Your task to perform on an android device: turn notification dots off Image 0: 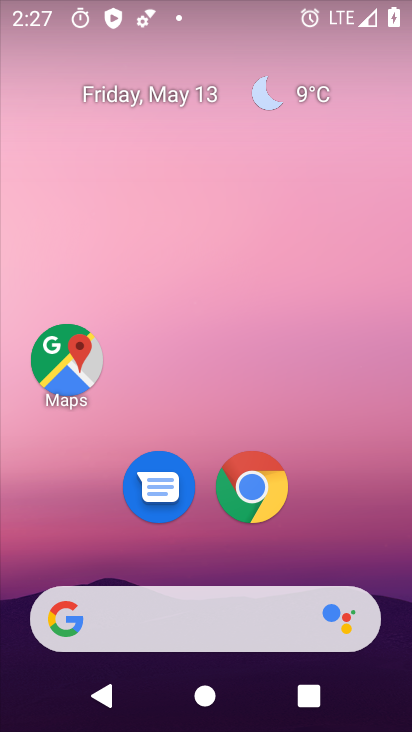
Step 0: drag from (214, 556) to (236, 97)
Your task to perform on an android device: turn notification dots off Image 1: 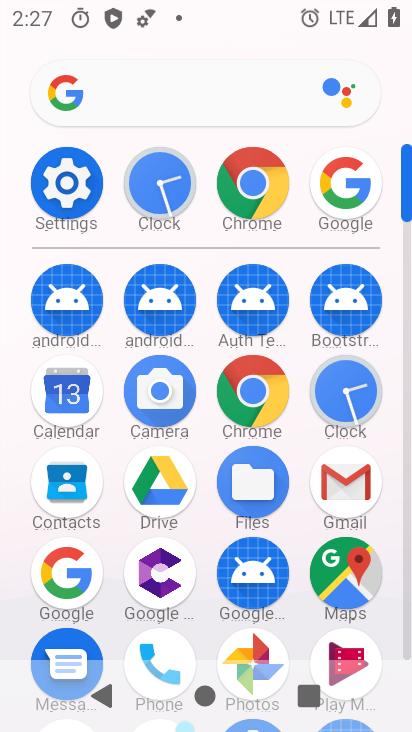
Step 1: click (64, 174)
Your task to perform on an android device: turn notification dots off Image 2: 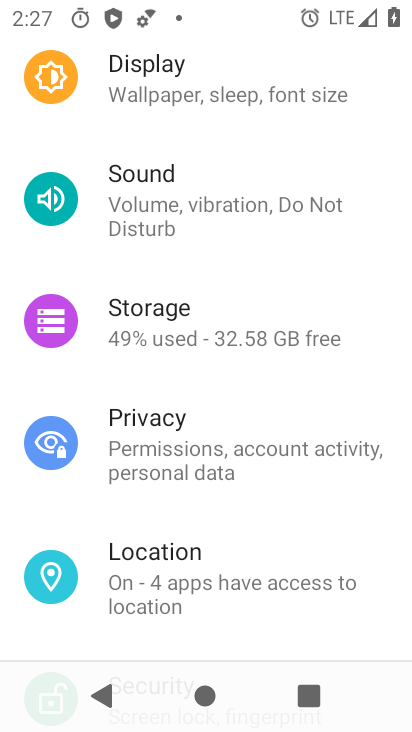
Step 2: drag from (213, 128) to (226, 500)
Your task to perform on an android device: turn notification dots off Image 3: 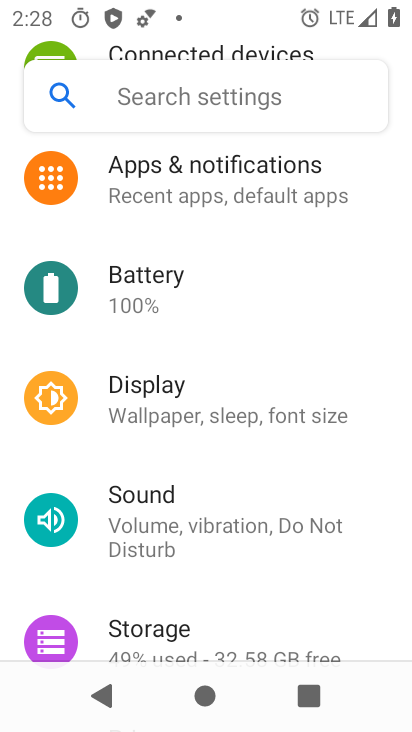
Step 3: click (201, 180)
Your task to perform on an android device: turn notification dots off Image 4: 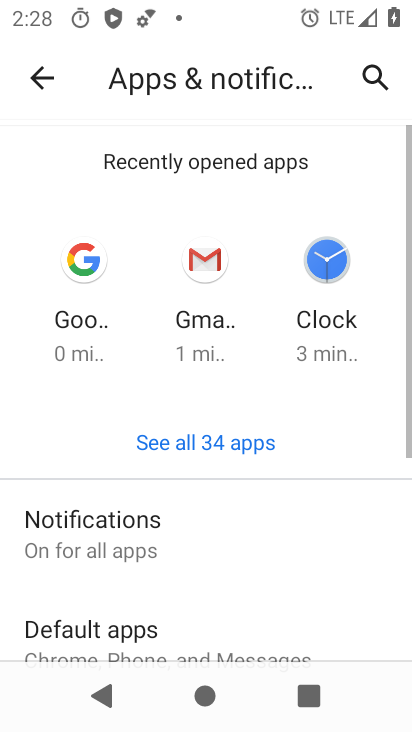
Step 4: click (157, 522)
Your task to perform on an android device: turn notification dots off Image 5: 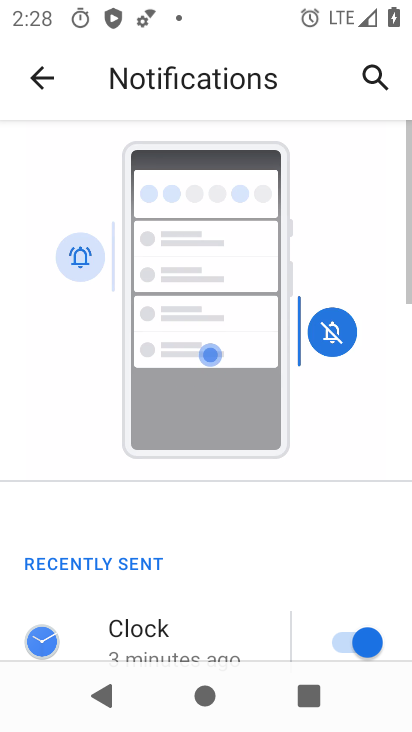
Step 5: drag from (237, 608) to (314, 132)
Your task to perform on an android device: turn notification dots off Image 6: 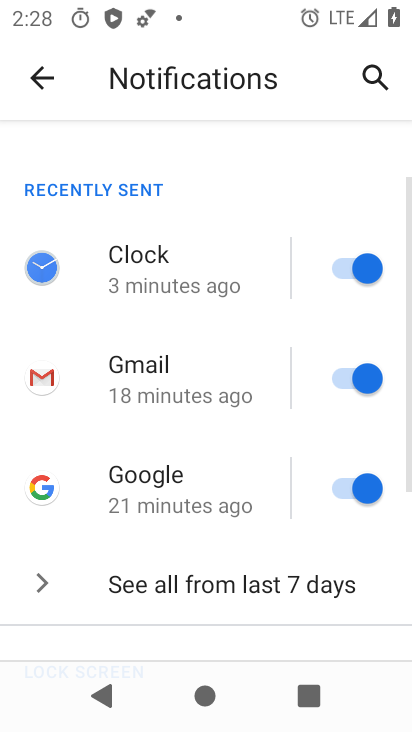
Step 6: drag from (190, 625) to (222, 181)
Your task to perform on an android device: turn notification dots off Image 7: 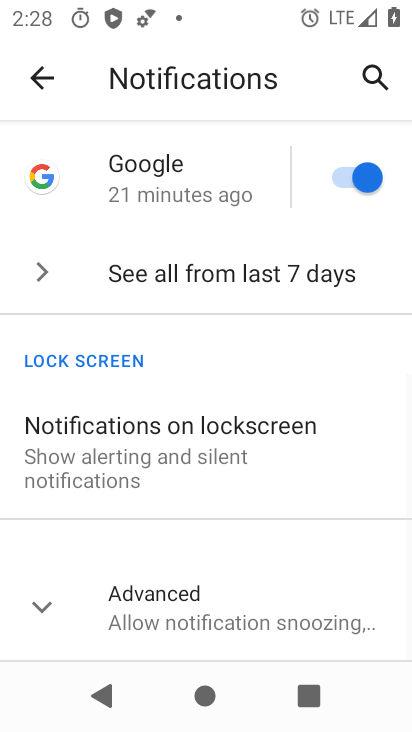
Step 7: click (193, 615)
Your task to perform on an android device: turn notification dots off Image 8: 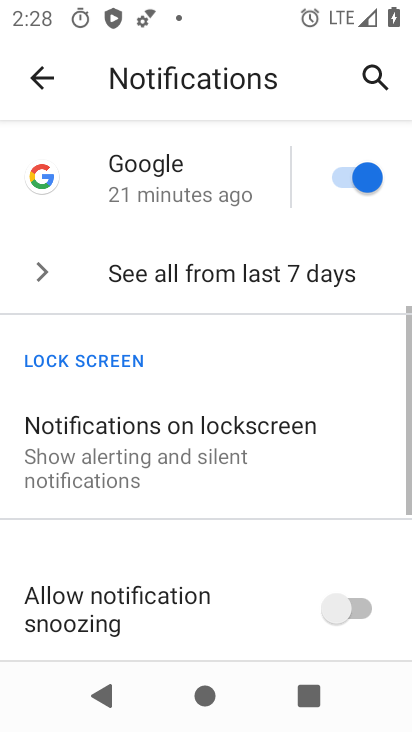
Step 8: drag from (270, 579) to (294, 190)
Your task to perform on an android device: turn notification dots off Image 9: 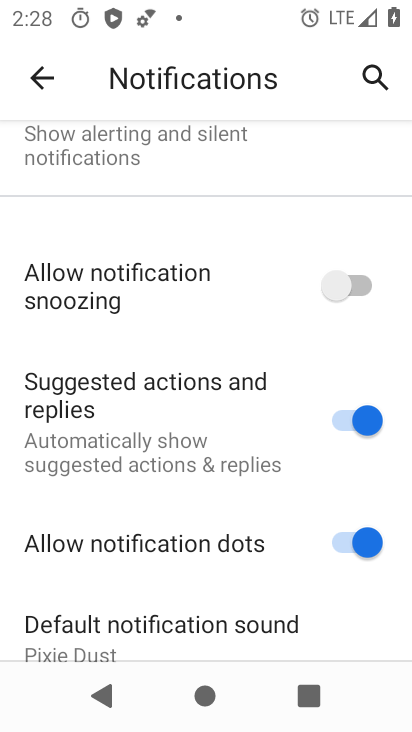
Step 9: click (367, 541)
Your task to perform on an android device: turn notification dots off Image 10: 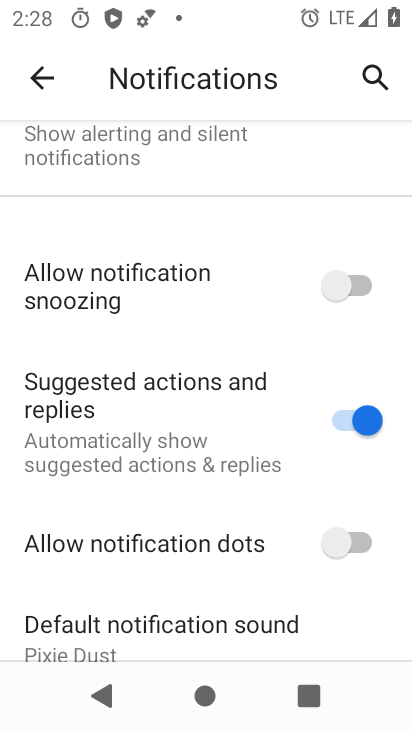
Step 10: task complete